Your task to perform on an android device: star an email in the gmail app Image 0: 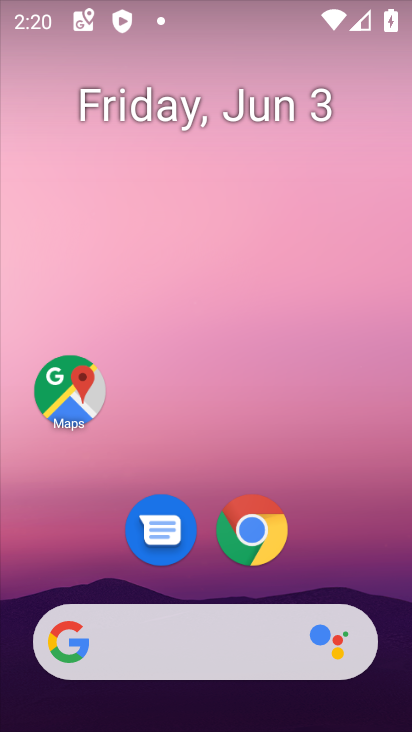
Step 0: drag from (336, 509) to (188, 88)
Your task to perform on an android device: star an email in the gmail app Image 1: 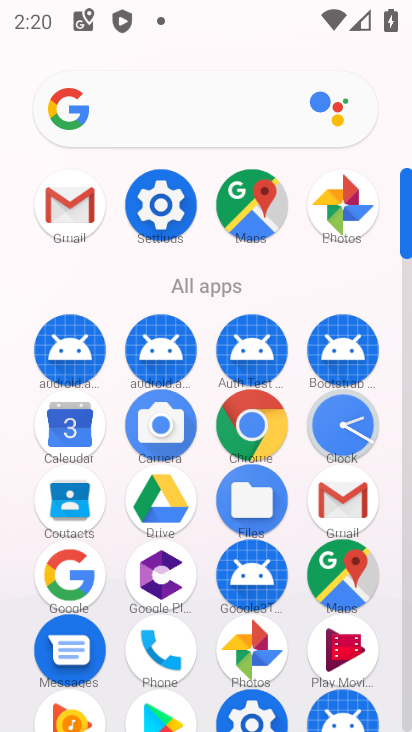
Step 1: click (348, 488)
Your task to perform on an android device: star an email in the gmail app Image 2: 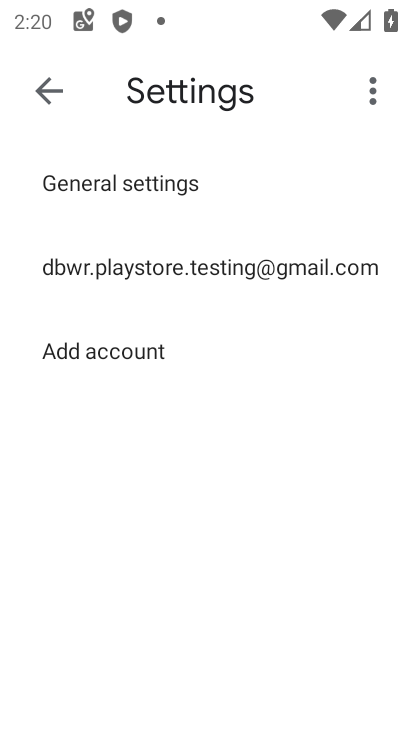
Step 2: click (38, 92)
Your task to perform on an android device: star an email in the gmail app Image 3: 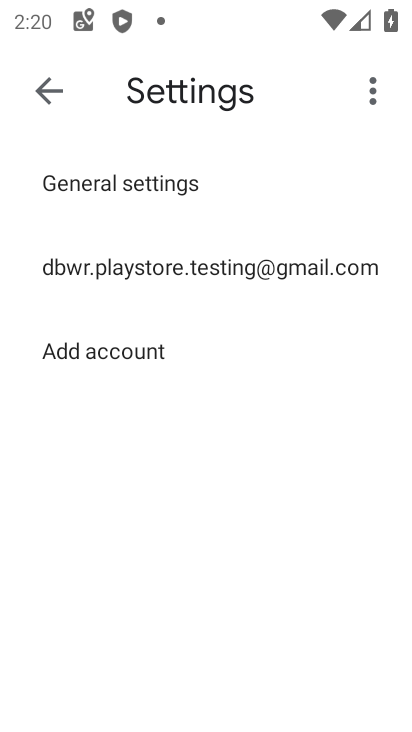
Step 3: click (50, 90)
Your task to perform on an android device: star an email in the gmail app Image 4: 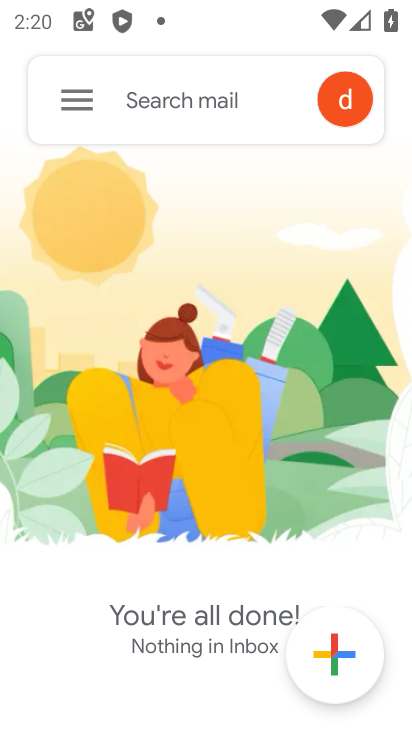
Step 4: click (71, 103)
Your task to perform on an android device: star an email in the gmail app Image 5: 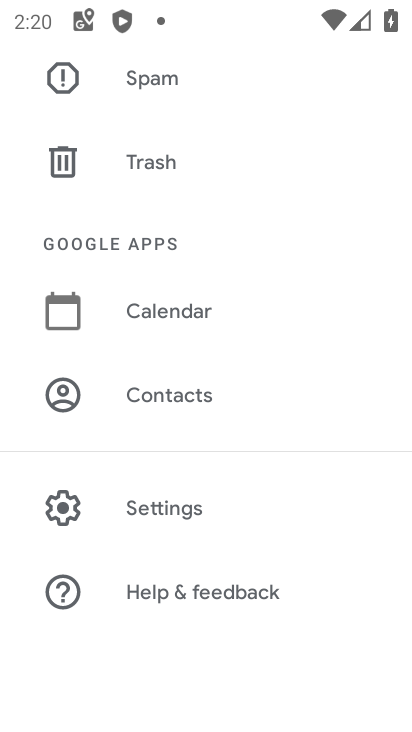
Step 5: drag from (209, 205) to (212, 483)
Your task to perform on an android device: star an email in the gmail app Image 6: 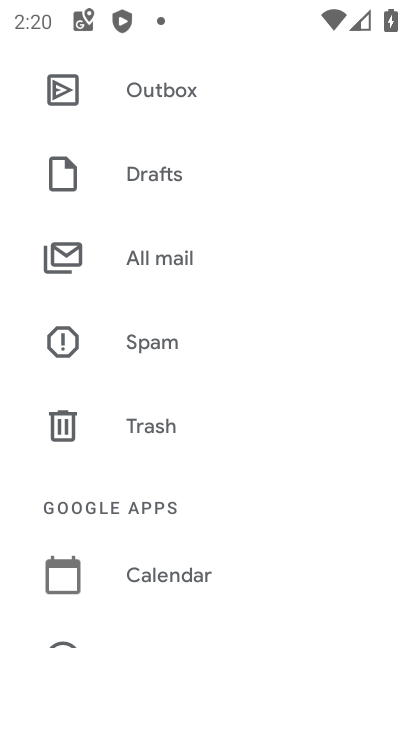
Step 6: click (156, 258)
Your task to perform on an android device: star an email in the gmail app Image 7: 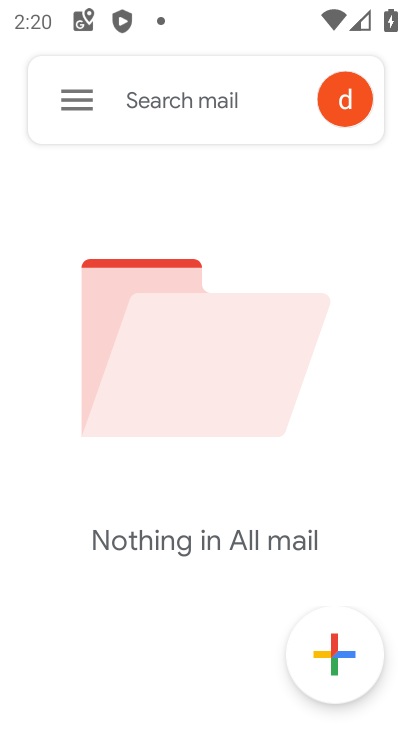
Step 7: task complete